Your task to perform on an android device: What's the weather today? Image 0: 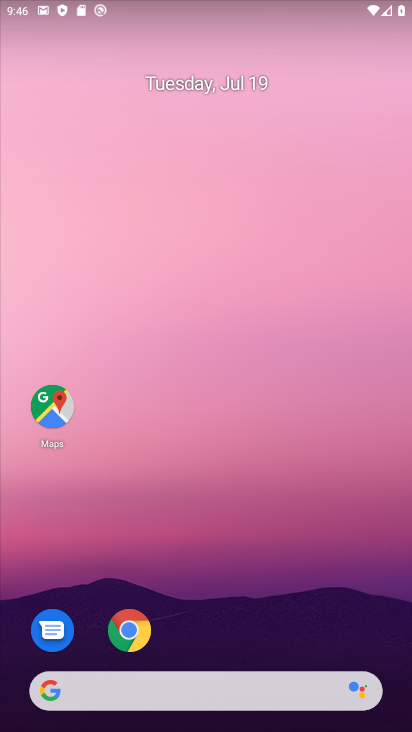
Step 0: drag from (262, 638) to (280, 115)
Your task to perform on an android device: What's the weather today? Image 1: 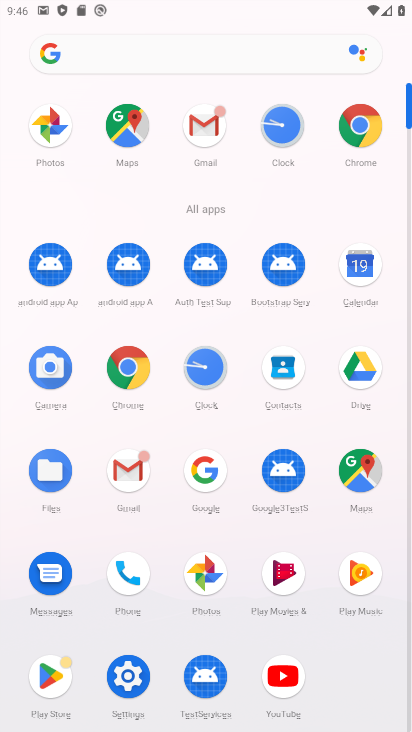
Step 1: click (359, 138)
Your task to perform on an android device: What's the weather today? Image 2: 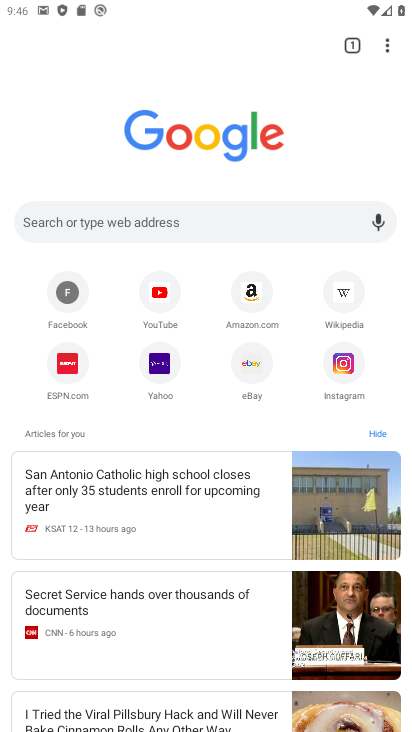
Step 2: click (298, 223)
Your task to perform on an android device: What's the weather today? Image 3: 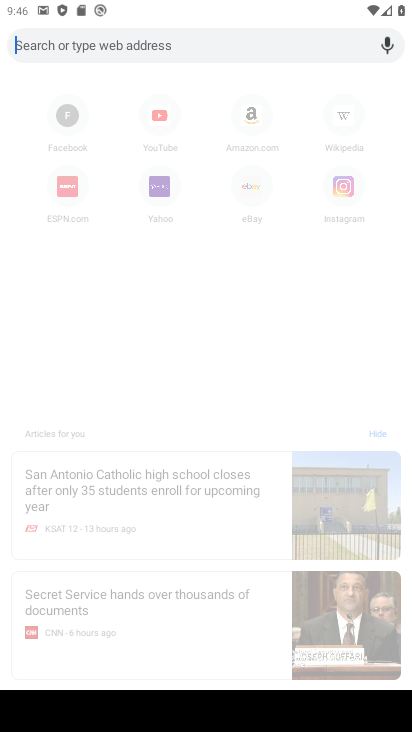
Step 3: click (276, 50)
Your task to perform on an android device: What's the weather today? Image 4: 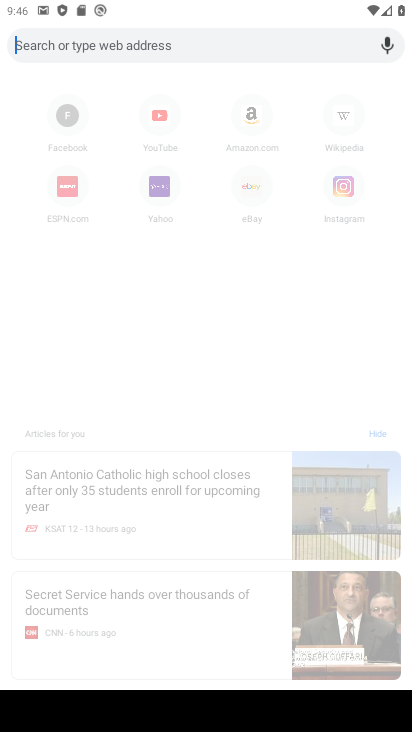
Step 4: type "What's the weather today?"
Your task to perform on an android device: What's the weather today? Image 5: 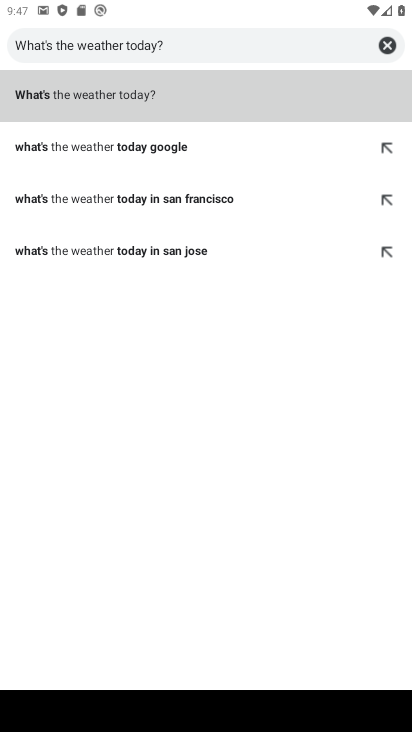
Step 5: click (187, 102)
Your task to perform on an android device: What's the weather today? Image 6: 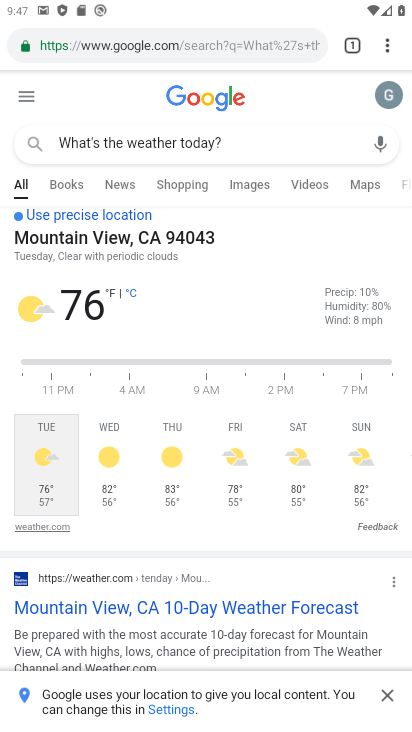
Step 6: task complete